Your task to perform on an android device: Open Android settings Image 0: 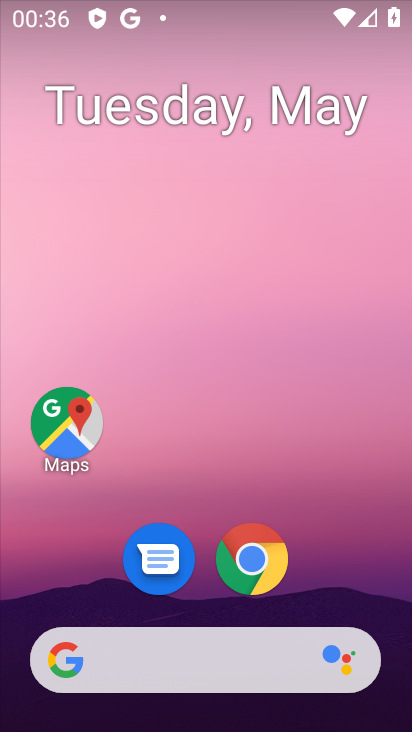
Step 0: drag from (290, 414) to (281, 94)
Your task to perform on an android device: Open Android settings Image 1: 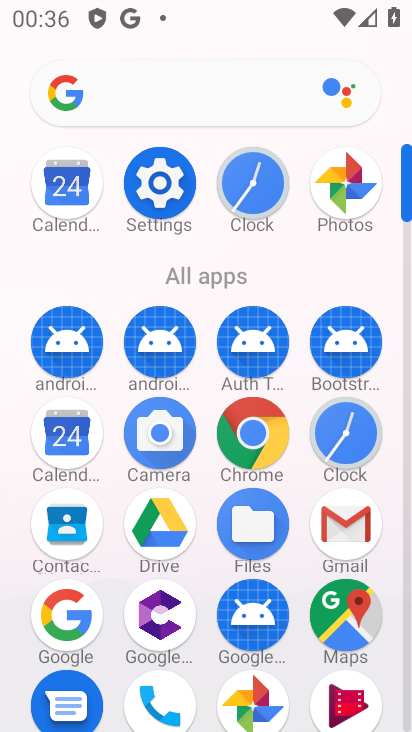
Step 1: click (179, 183)
Your task to perform on an android device: Open Android settings Image 2: 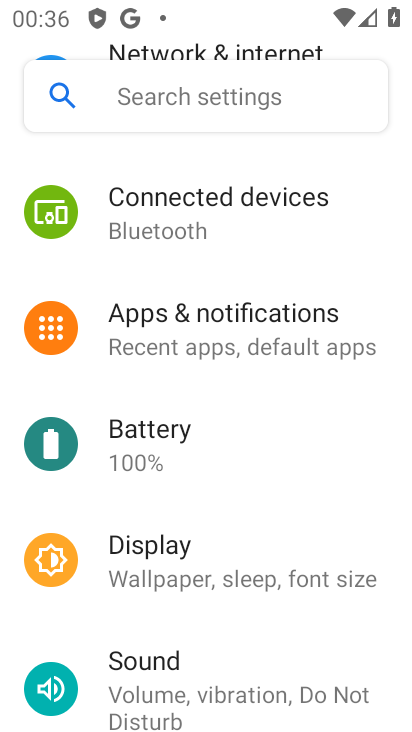
Step 2: task complete